Your task to perform on an android device: Toggle the flashlight Image 0: 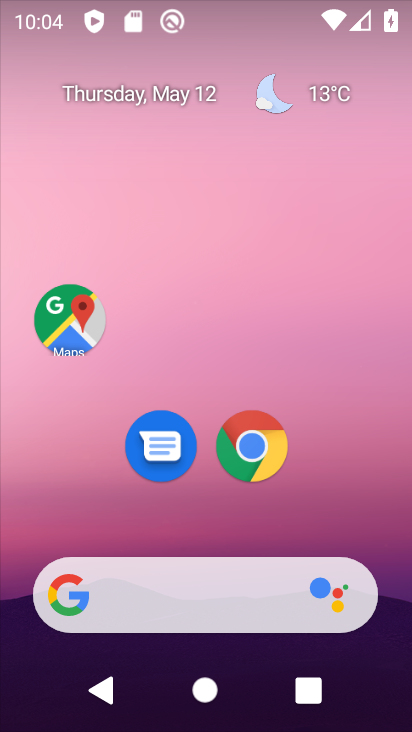
Step 0: drag from (166, 603) to (221, 143)
Your task to perform on an android device: Toggle the flashlight Image 1: 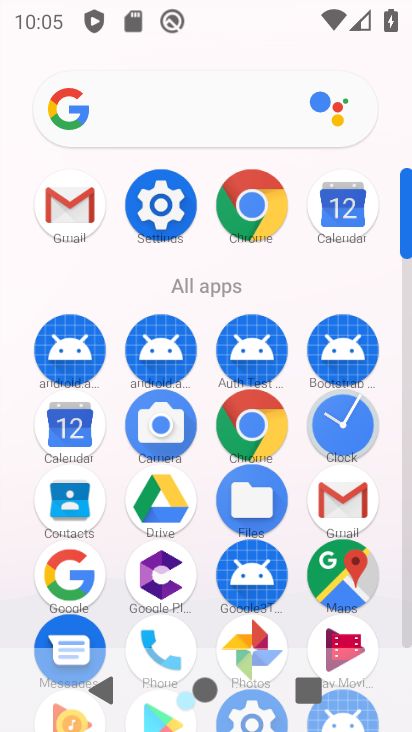
Step 1: task complete